Your task to perform on an android device: Open ESPN.com Image 0: 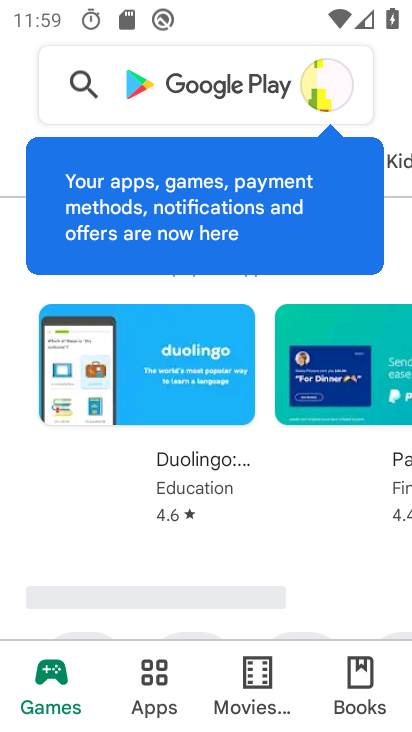
Step 0: press home button
Your task to perform on an android device: Open ESPN.com Image 1: 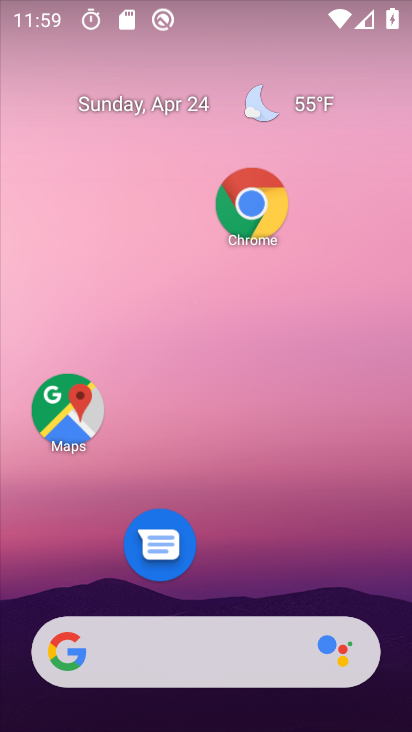
Step 1: drag from (307, 687) to (204, 235)
Your task to perform on an android device: Open ESPN.com Image 2: 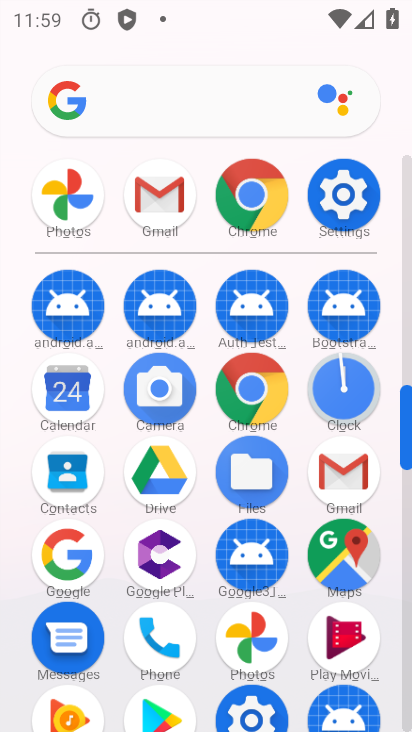
Step 2: click (262, 201)
Your task to perform on an android device: Open ESPN.com Image 3: 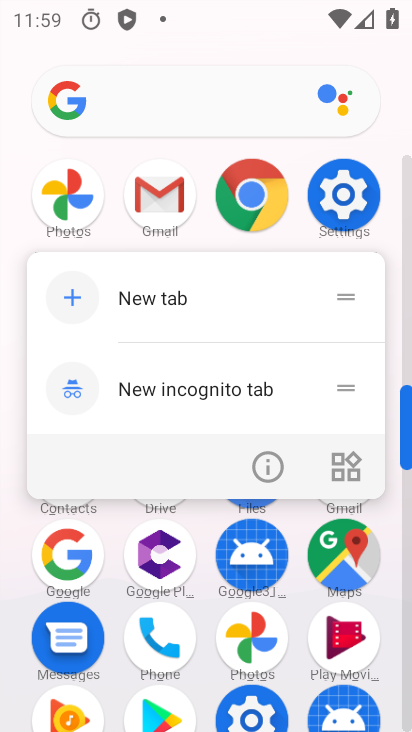
Step 3: click (264, 205)
Your task to perform on an android device: Open ESPN.com Image 4: 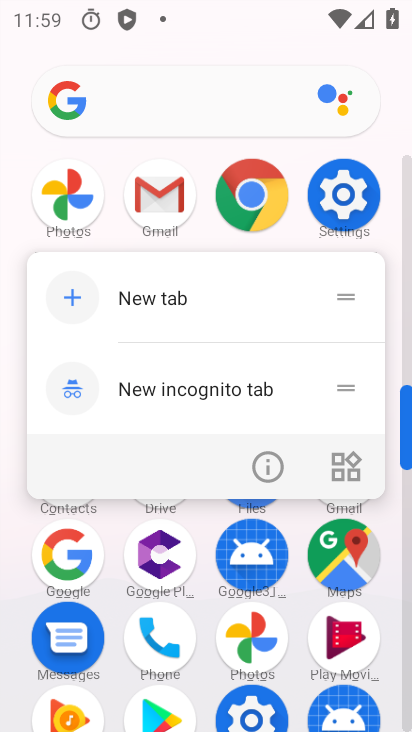
Step 4: click (254, 196)
Your task to perform on an android device: Open ESPN.com Image 5: 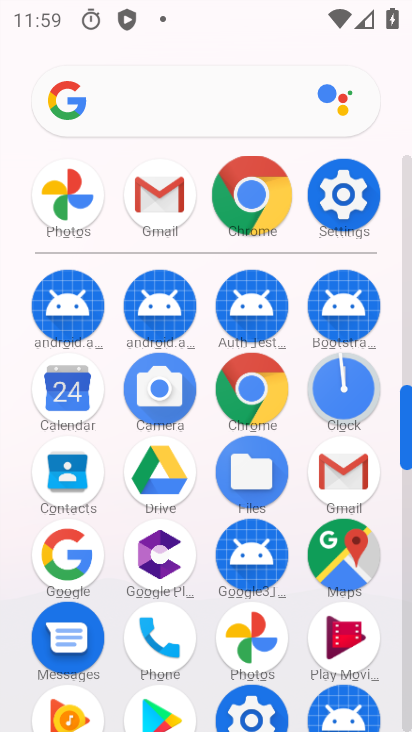
Step 5: click (253, 191)
Your task to perform on an android device: Open ESPN.com Image 6: 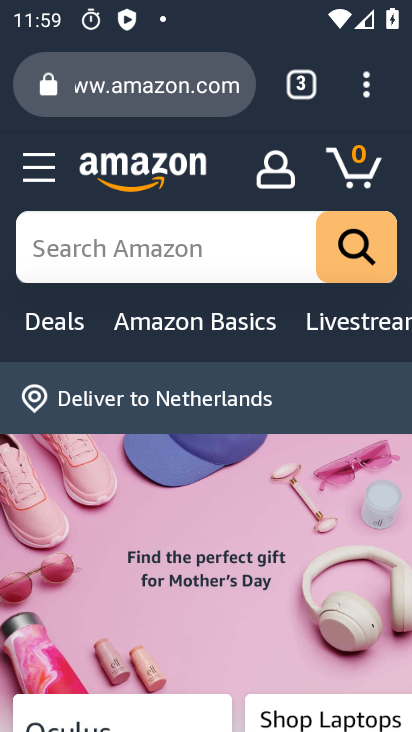
Step 6: click (304, 86)
Your task to perform on an android device: Open ESPN.com Image 7: 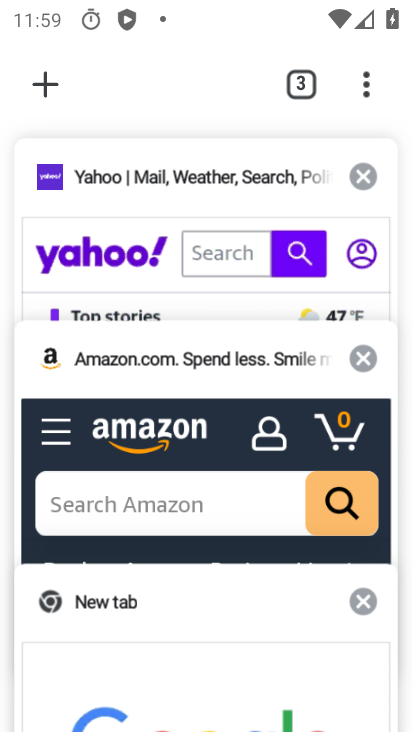
Step 7: click (44, 88)
Your task to perform on an android device: Open ESPN.com Image 8: 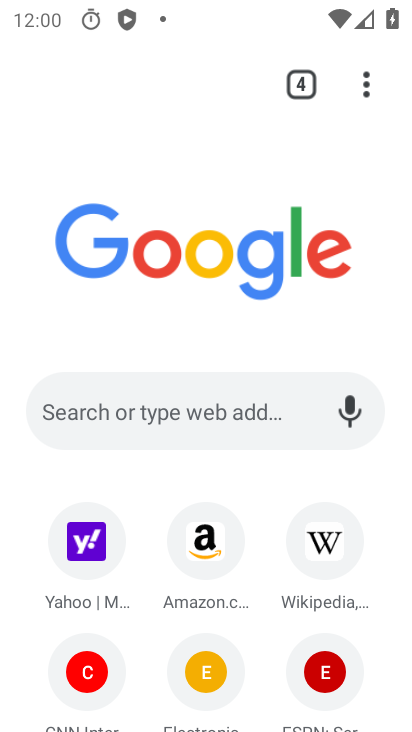
Step 8: click (120, 400)
Your task to perform on an android device: Open ESPN.com Image 9: 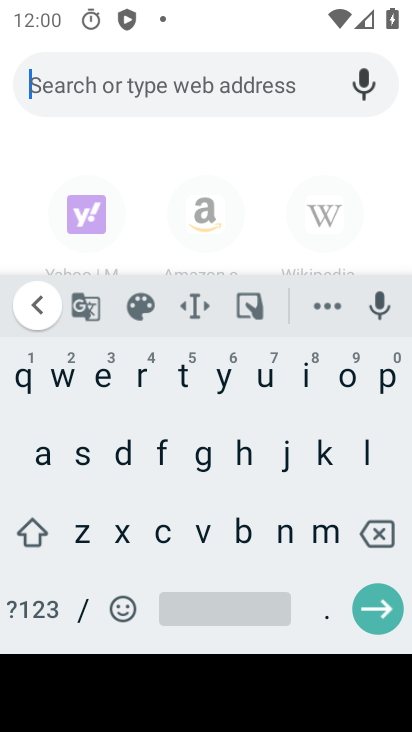
Step 9: click (96, 377)
Your task to perform on an android device: Open ESPN.com Image 10: 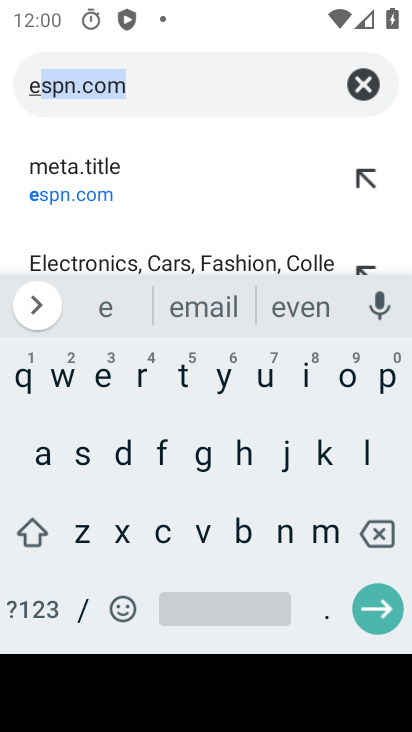
Step 10: click (194, 94)
Your task to perform on an android device: Open ESPN.com Image 11: 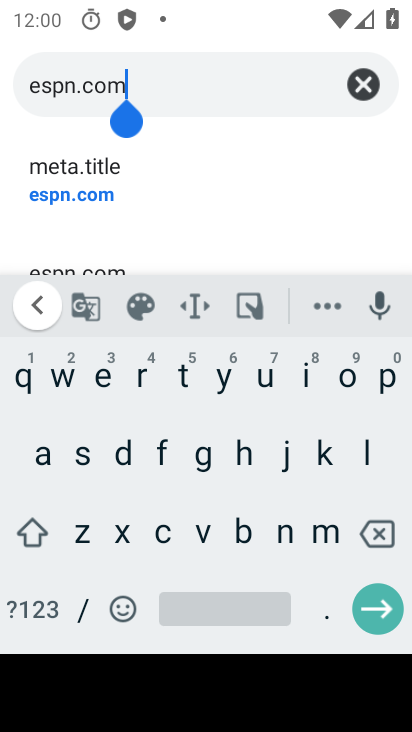
Step 11: click (379, 615)
Your task to perform on an android device: Open ESPN.com Image 12: 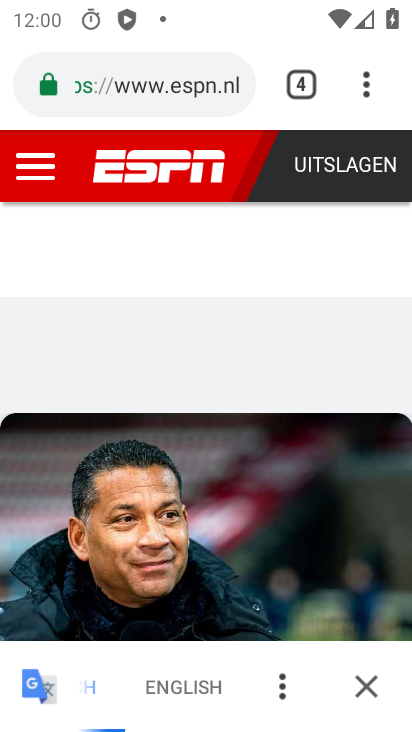
Step 12: task complete